Your task to perform on an android device: open a bookmark in the chrome app Image 0: 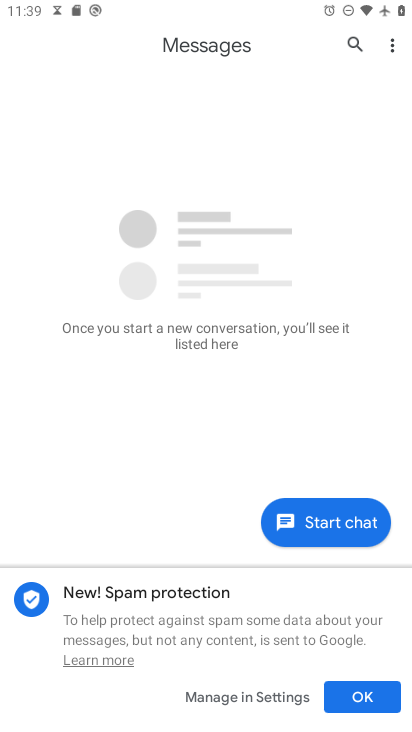
Step 0: press home button
Your task to perform on an android device: open a bookmark in the chrome app Image 1: 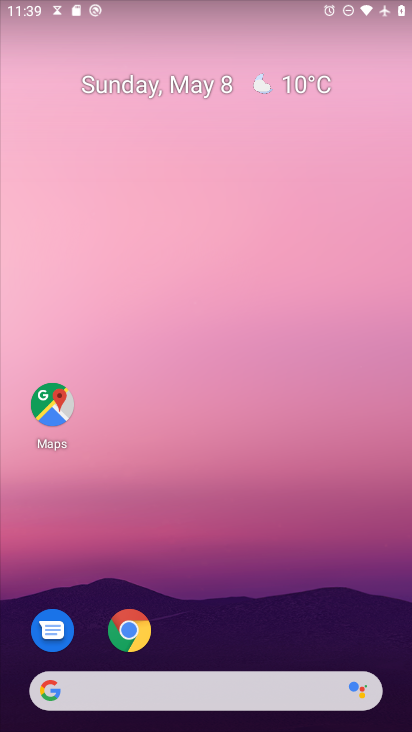
Step 1: drag from (196, 692) to (368, 69)
Your task to perform on an android device: open a bookmark in the chrome app Image 2: 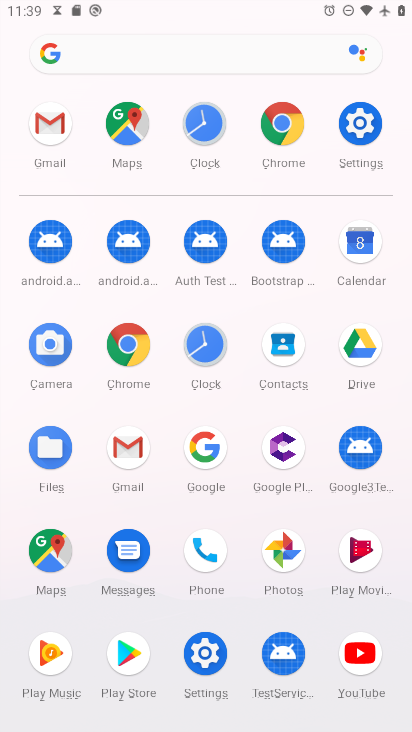
Step 2: click (279, 131)
Your task to perform on an android device: open a bookmark in the chrome app Image 3: 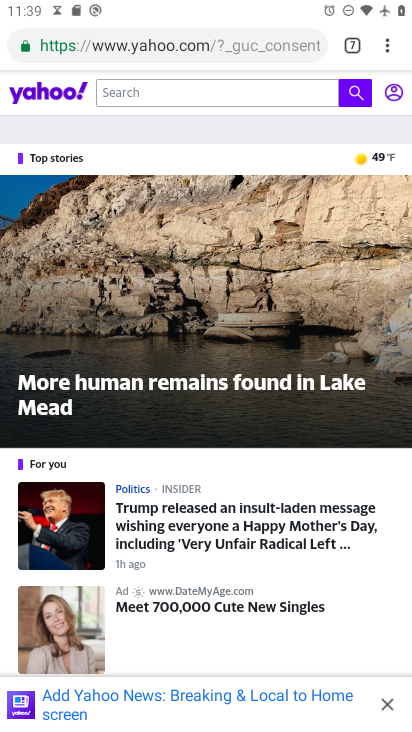
Step 3: task complete